Your task to perform on an android device: Open calendar and show me the second week of next month Image 0: 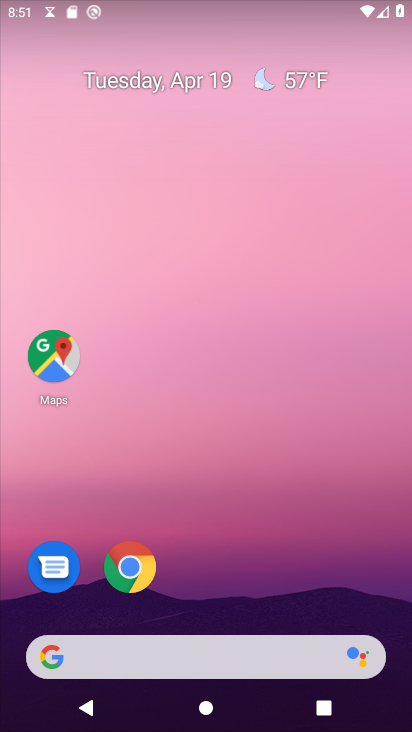
Step 0: drag from (269, 418) to (404, 39)
Your task to perform on an android device: Open calendar and show me the second week of next month Image 1: 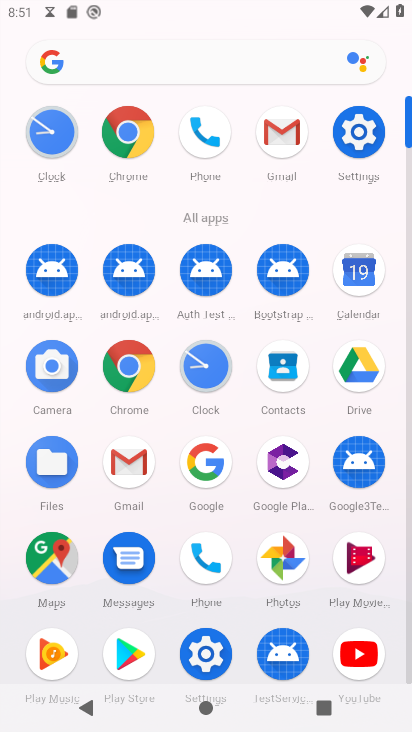
Step 1: click (49, 144)
Your task to perform on an android device: Open calendar and show me the second week of next month Image 2: 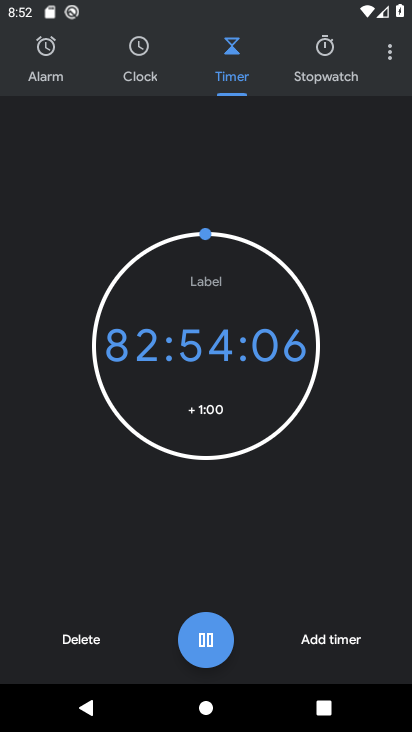
Step 2: click (379, 44)
Your task to perform on an android device: Open calendar and show me the second week of next month Image 3: 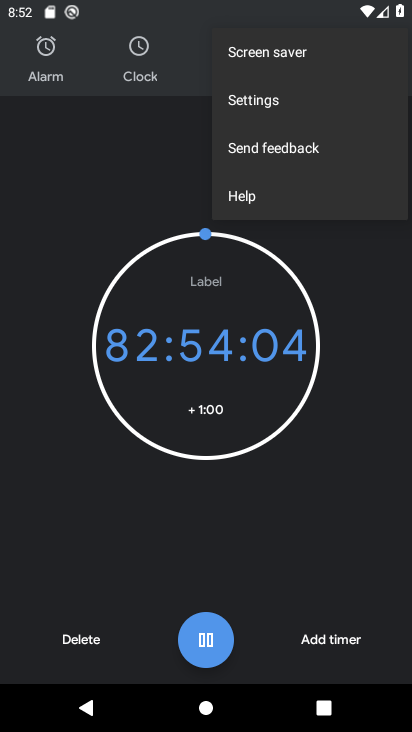
Step 3: click (253, 111)
Your task to perform on an android device: Open calendar and show me the second week of next month Image 4: 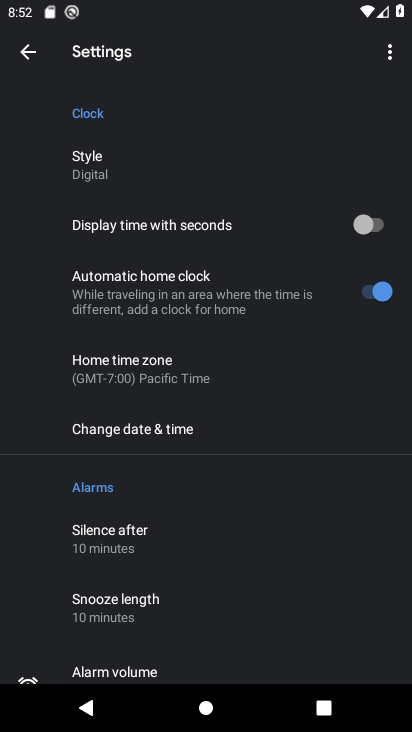
Step 4: click (382, 217)
Your task to perform on an android device: Open calendar and show me the second week of next month Image 5: 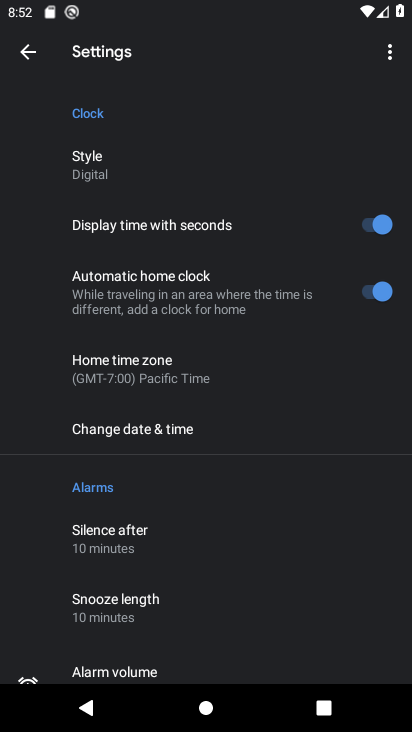
Step 5: task complete